Your task to perform on an android device: What's the weather? Image 0: 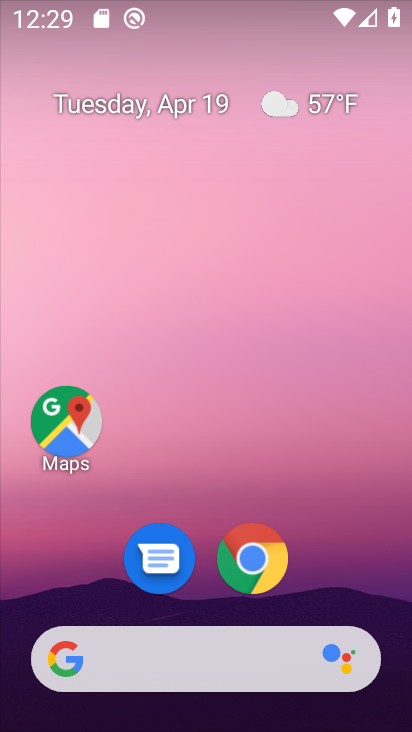
Step 0: drag from (332, 555) to (296, 155)
Your task to perform on an android device: What's the weather? Image 1: 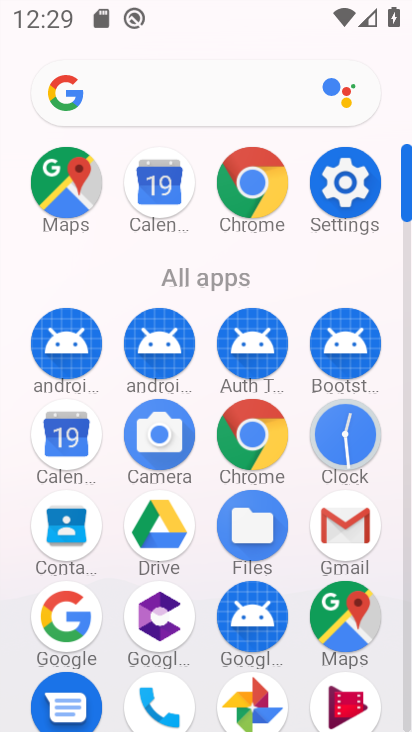
Step 1: click (246, 178)
Your task to perform on an android device: What's the weather? Image 2: 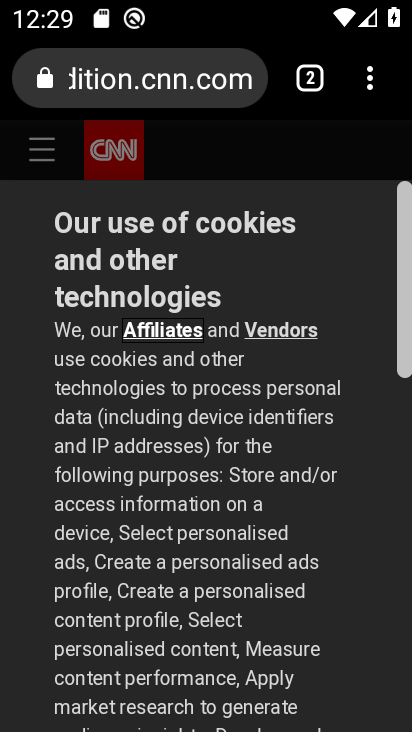
Step 2: click (312, 82)
Your task to perform on an android device: What's the weather? Image 3: 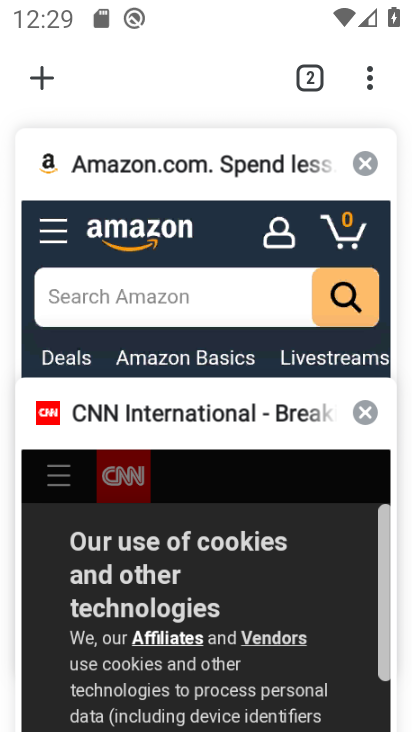
Step 3: click (37, 75)
Your task to perform on an android device: What's the weather? Image 4: 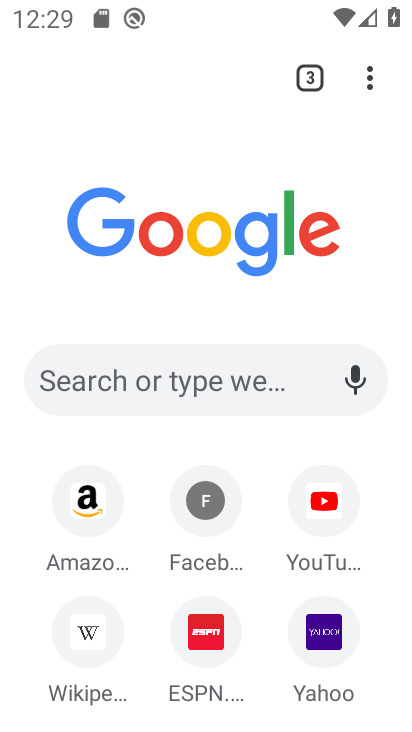
Step 4: click (110, 378)
Your task to perform on an android device: What's the weather? Image 5: 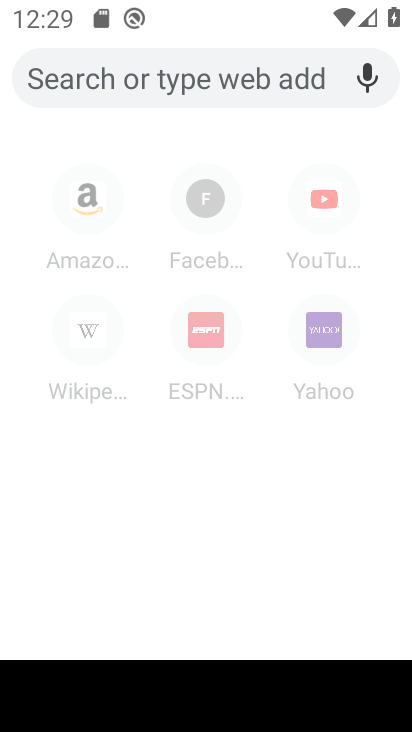
Step 5: type "weather"
Your task to perform on an android device: What's the weather? Image 6: 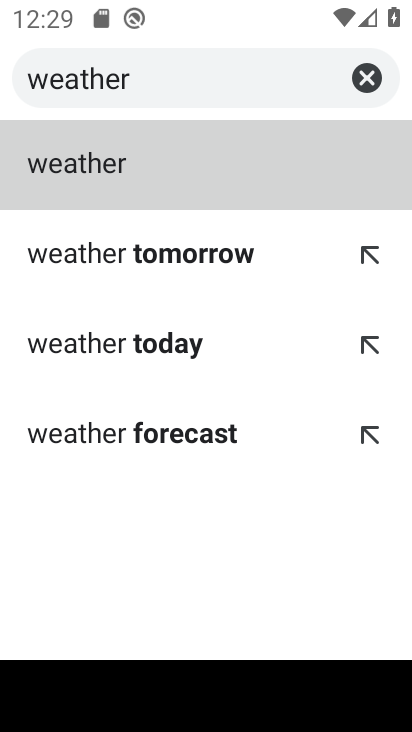
Step 6: click (52, 164)
Your task to perform on an android device: What's the weather? Image 7: 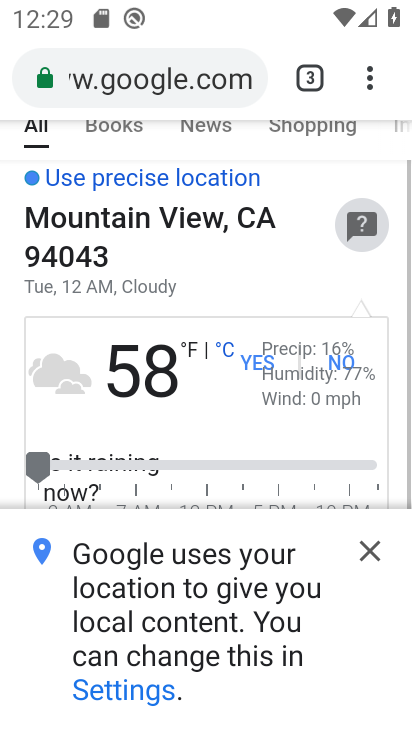
Step 7: click (372, 552)
Your task to perform on an android device: What's the weather? Image 8: 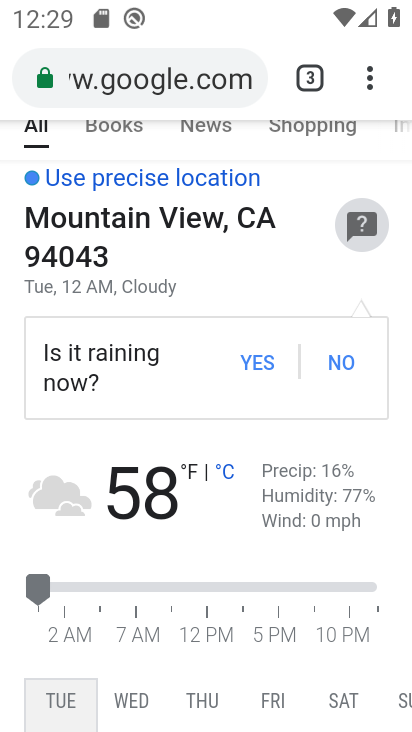
Step 8: task complete